Your task to perform on an android device: Find coffee shops on Maps Image 0: 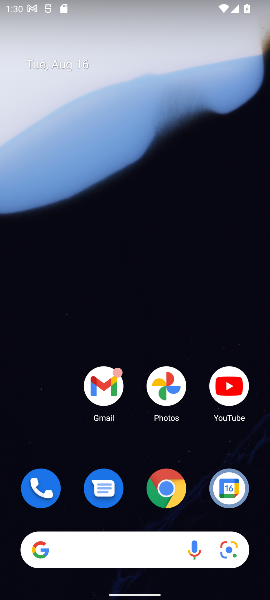
Step 0: drag from (49, 428) to (83, 214)
Your task to perform on an android device: Find coffee shops on Maps Image 1: 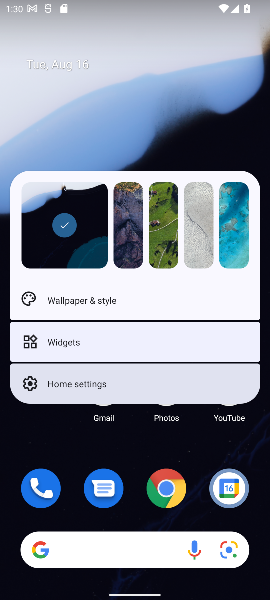
Step 1: click (59, 429)
Your task to perform on an android device: Find coffee shops on Maps Image 2: 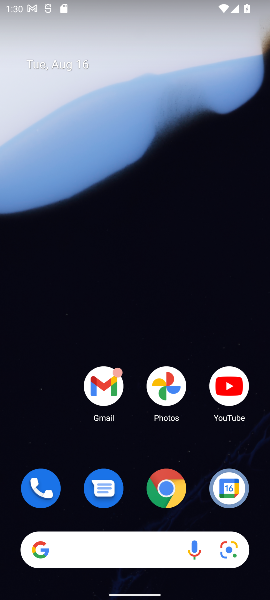
Step 2: drag from (143, 340) to (178, 61)
Your task to perform on an android device: Find coffee shops on Maps Image 3: 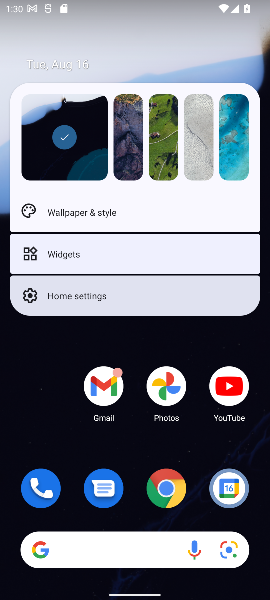
Step 3: click (140, 343)
Your task to perform on an android device: Find coffee shops on Maps Image 4: 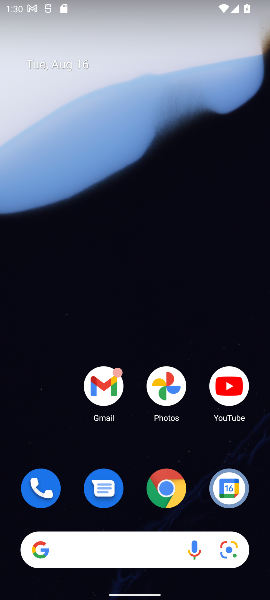
Step 4: drag from (140, 346) to (158, 146)
Your task to perform on an android device: Find coffee shops on Maps Image 5: 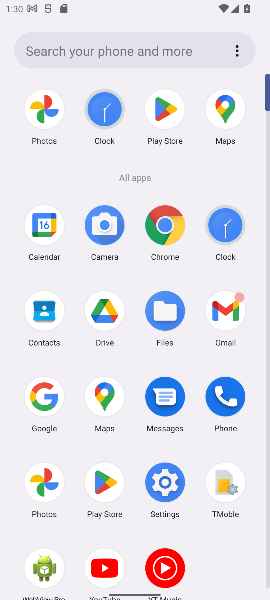
Step 5: click (108, 398)
Your task to perform on an android device: Find coffee shops on Maps Image 6: 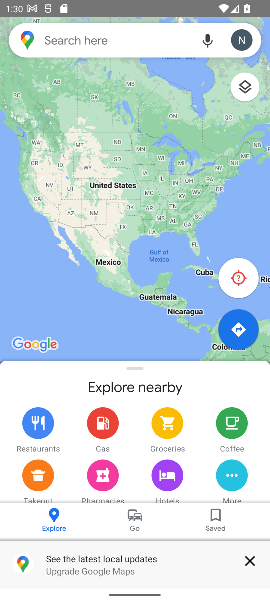
Step 6: task complete